Your task to perform on an android device: Go to eBay Image 0: 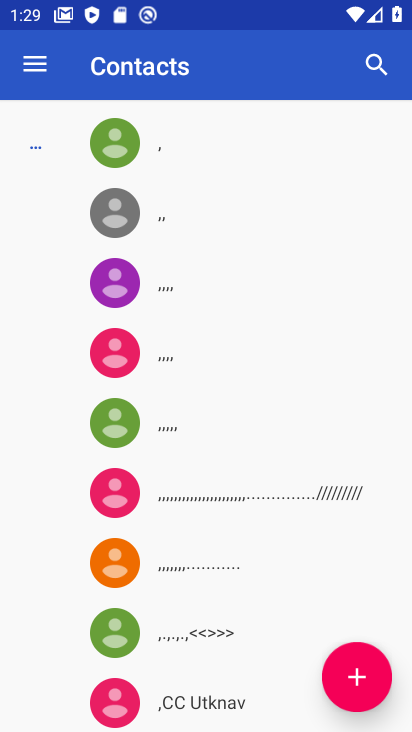
Step 0: press home button
Your task to perform on an android device: Go to eBay Image 1: 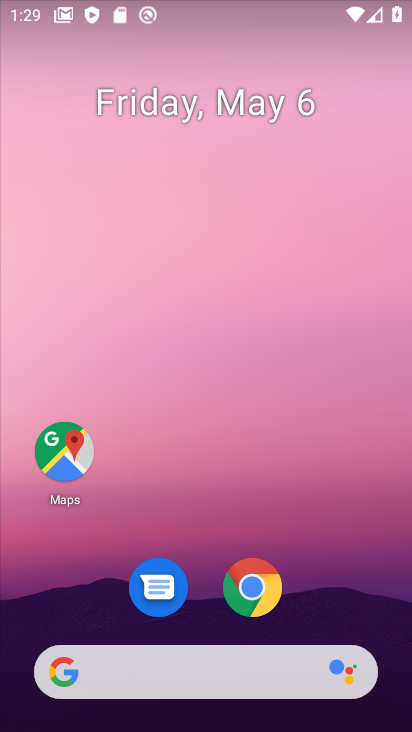
Step 1: drag from (343, 517) to (319, 38)
Your task to perform on an android device: Go to eBay Image 2: 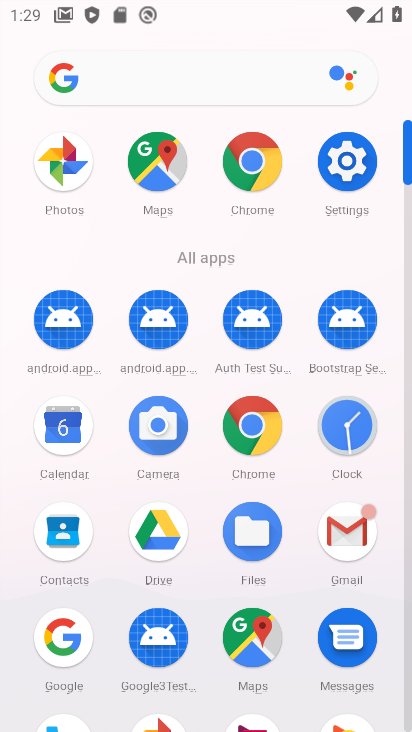
Step 2: click (268, 150)
Your task to perform on an android device: Go to eBay Image 3: 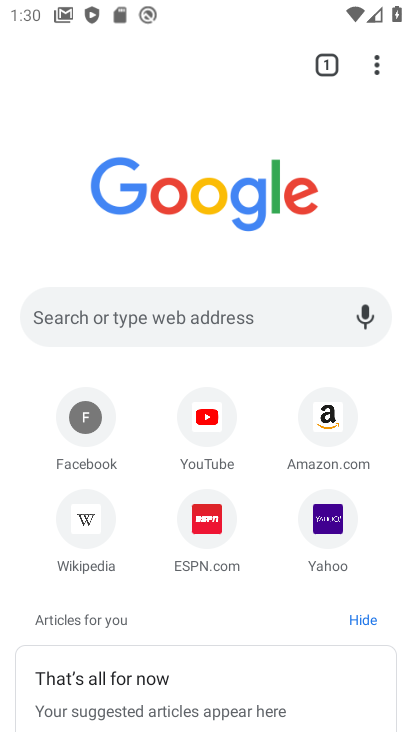
Step 3: drag from (385, 547) to (408, 194)
Your task to perform on an android device: Go to eBay Image 4: 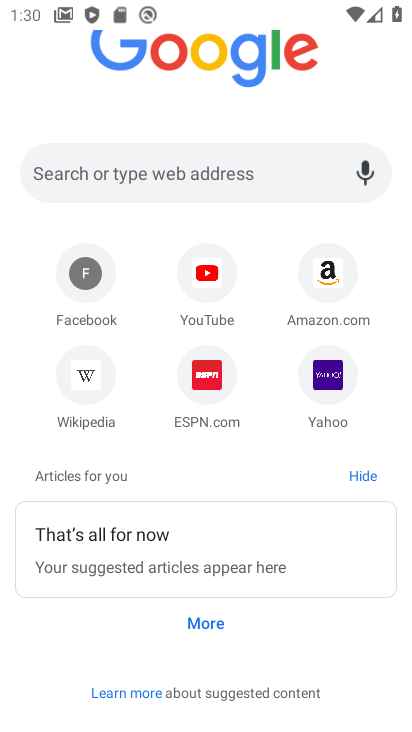
Step 4: click (243, 174)
Your task to perform on an android device: Go to eBay Image 5: 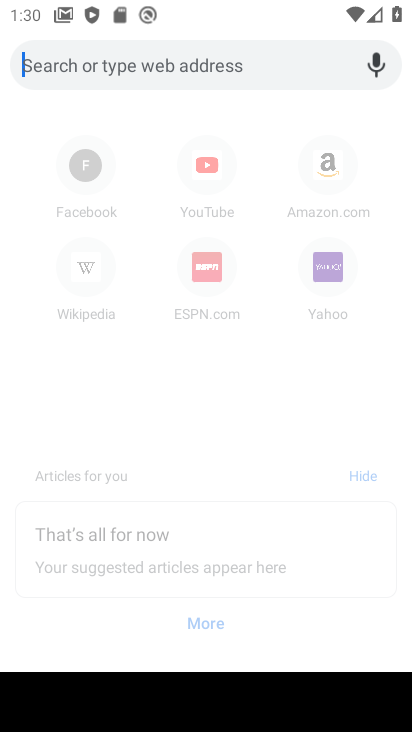
Step 5: type "ebay"
Your task to perform on an android device: Go to eBay Image 6: 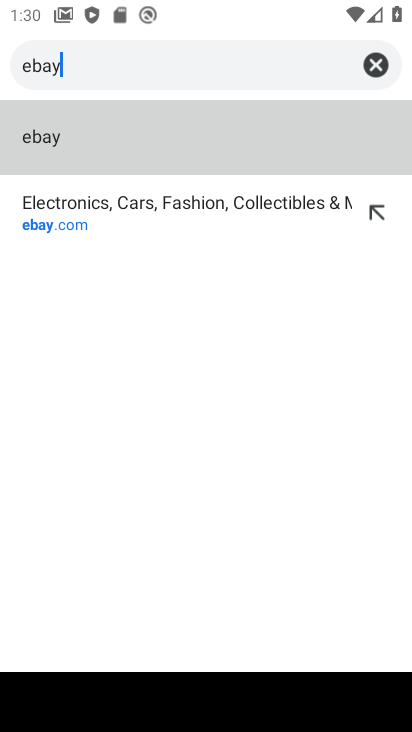
Step 6: click (62, 135)
Your task to perform on an android device: Go to eBay Image 7: 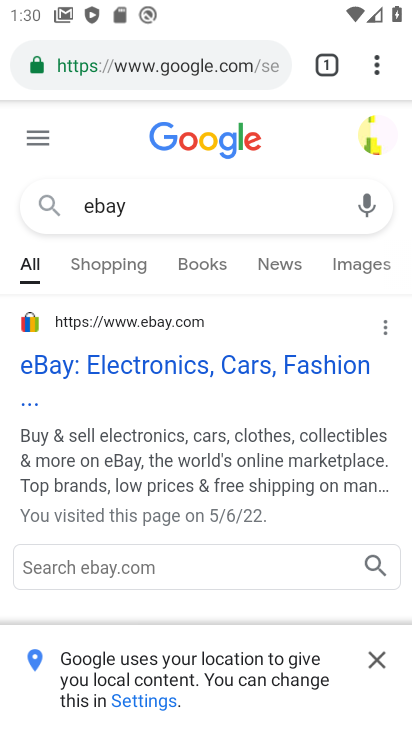
Step 7: click (140, 364)
Your task to perform on an android device: Go to eBay Image 8: 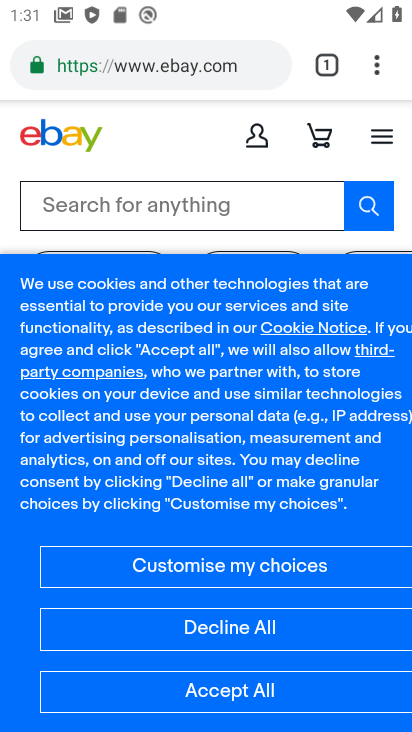
Step 8: task complete